Your task to perform on an android device: Go to privacy settings Image 0: 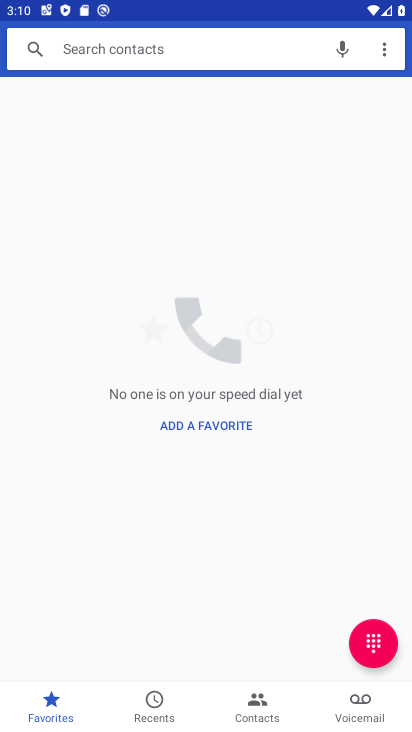
Step 0: click (297, 613)
Your task to perform on an android device: Go to privacy settings Image 1: 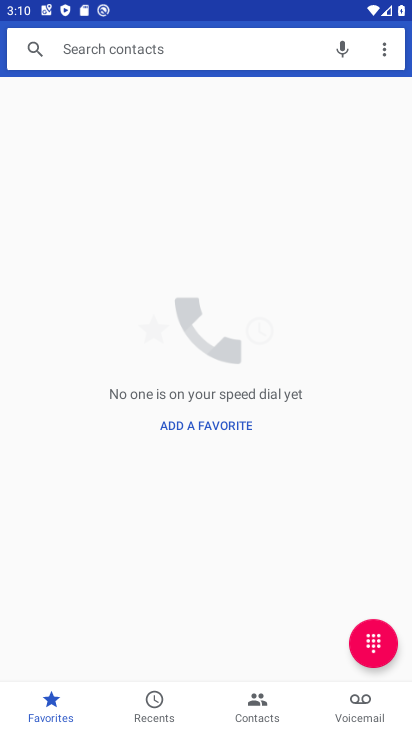
Step 1: press home button
Your task to perform on an android device: Go to privacy settings Image 2: 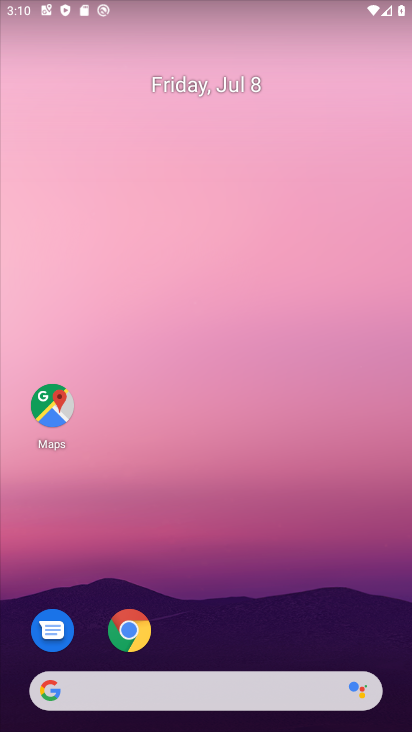
Step 2: drag from (290, 627) to (155, 113)
Your task to perform on an android device: Go to privacy settings Image 3: 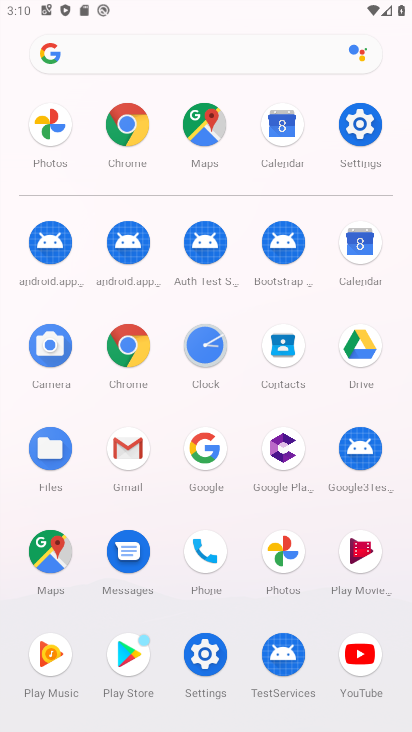
Step 3: click (368, 154)
Your task to perform on an android device: Go to privacy settings Image 4: 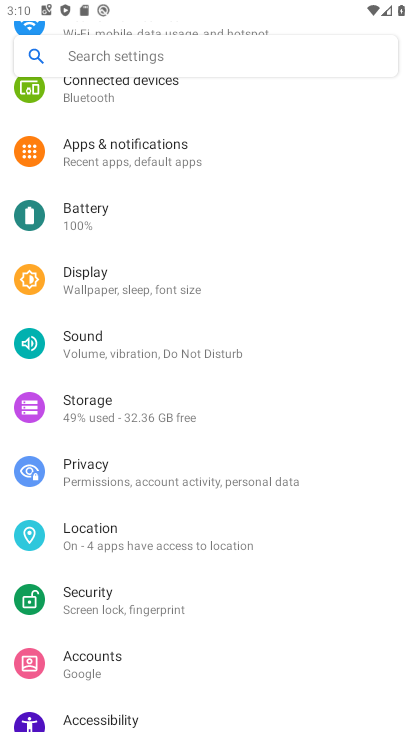
Step 4: click (80, 481)
Your task to perform on an android device: Go to privacy settings Image 5: 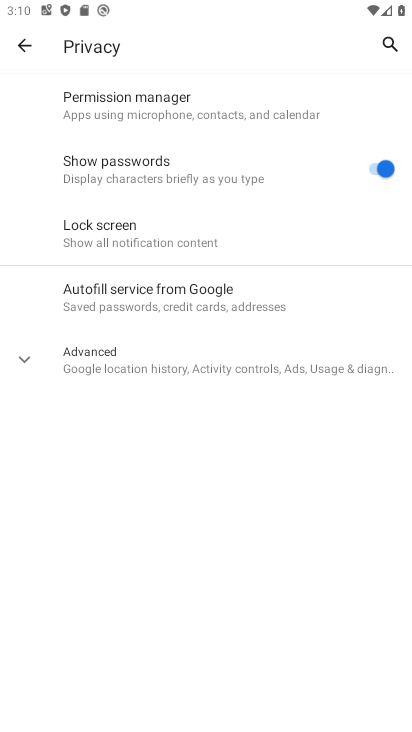
Step 5: click (45, 377)
Your task to perform on an android device: Go to privacy settings Image 6: 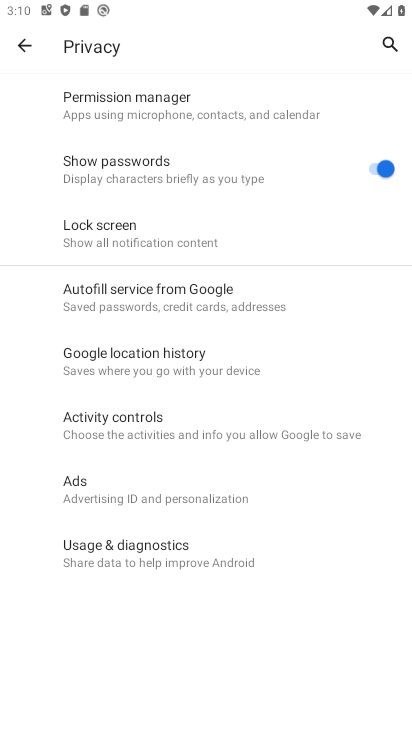
Step 6: task complete